Your task to perform on an android device: change keyboard looks Image 0: 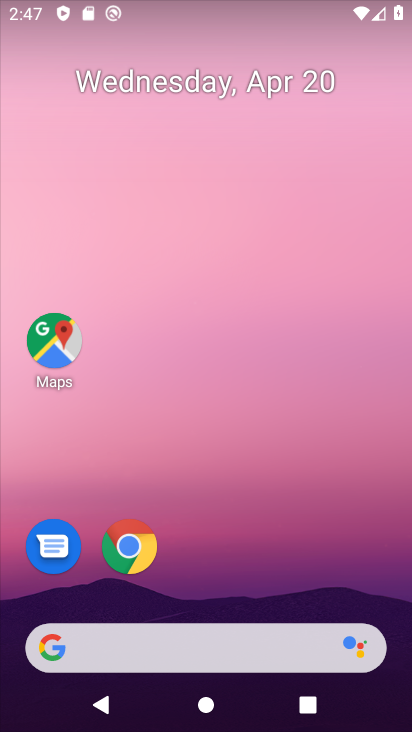
Step 0: drag from (220, 562) to (281, 146)
Your task to perform on an android device: change keyboard looks Image 1: 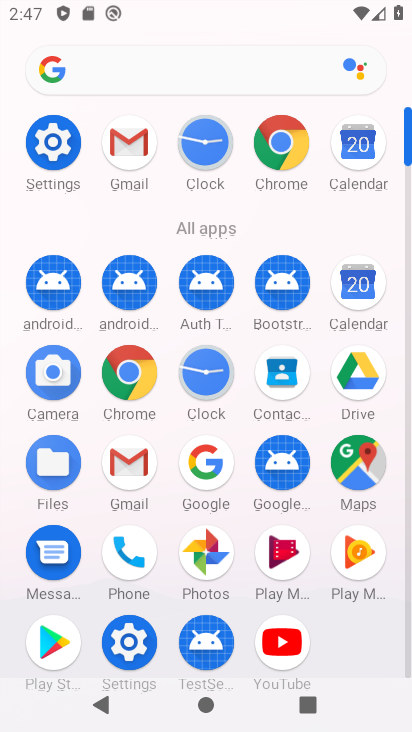
Step 1: click (61, 158)
Your task to perform on an android device: change keyboard looks Image 2: 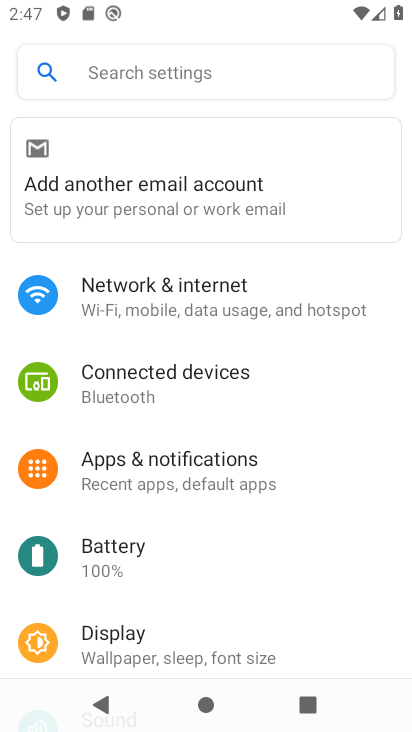
Step 2: drag from (303, 607) to (272, 215)
Your task to perform on an android device: change keyboard looks Image 3: 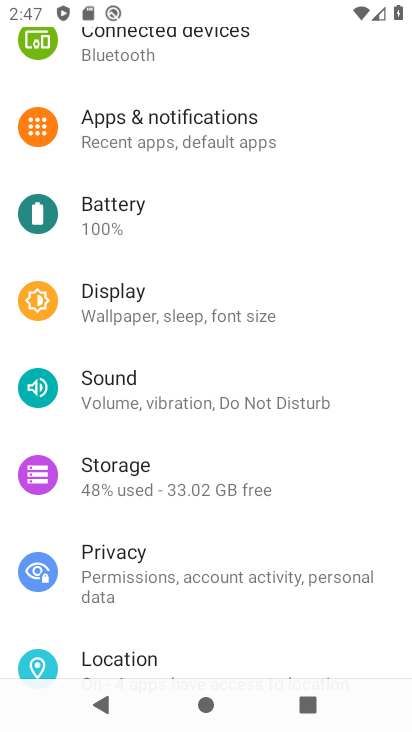
Step 3: drag from (267, 649) to (285, 207)
Your task to perform on an android device: change keyboard looks Image 4: 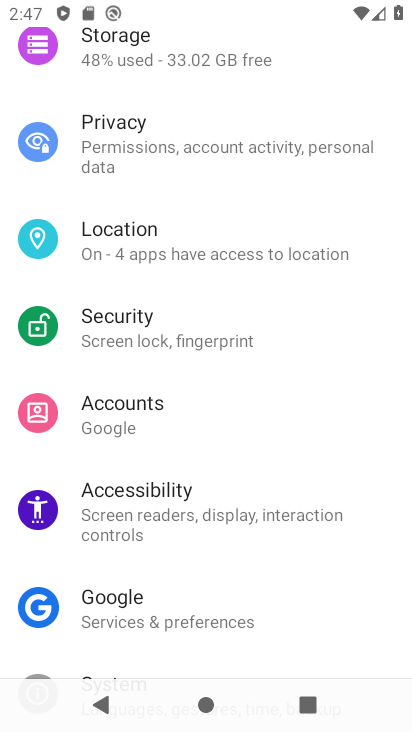
Step 4: drag from (201, 595) to (250, 203)
Your task to perform on an android device: change keyboard looks Image 5: 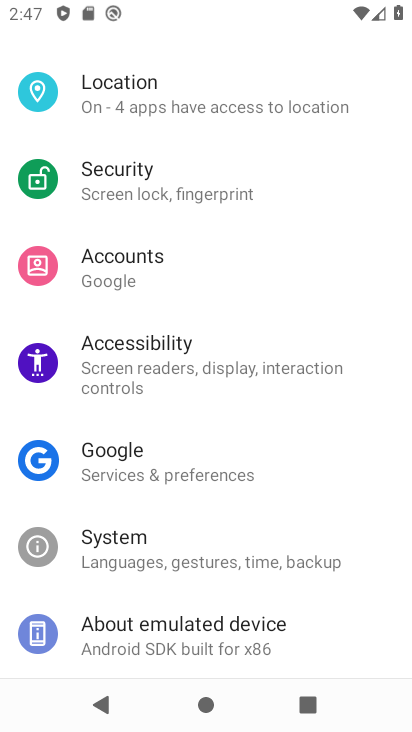
Step 5: click (215, 551)
Your task to perform on an android device: change keyboard looks Image 6: 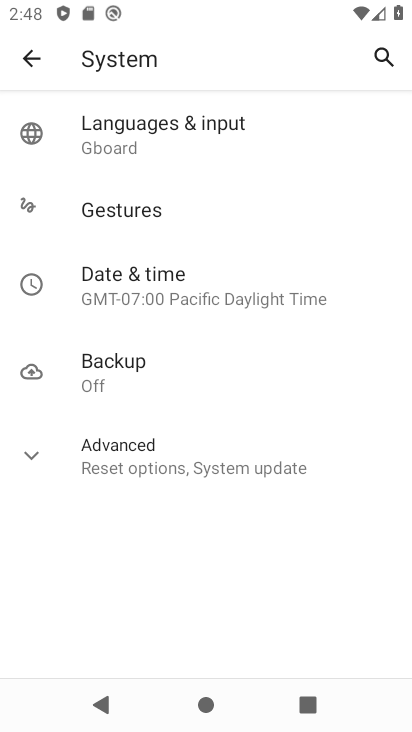
Step 6: click (137, 131)
Your task to perform on an android device: change keyboard looks Image 7: 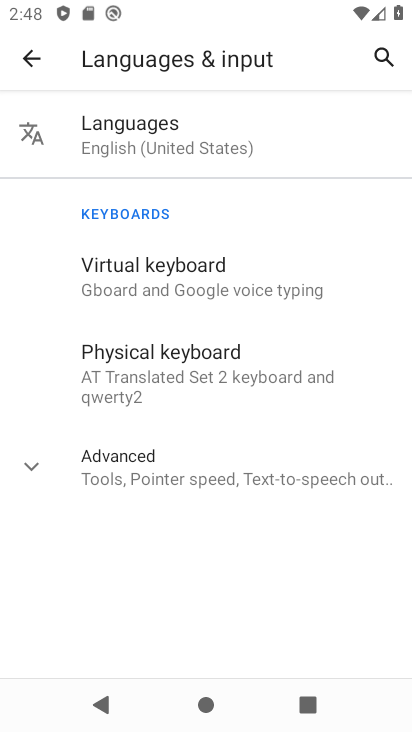
Step 7: click (131, 279)
Your task to perform on an android device: change keyboard looks Image 8: 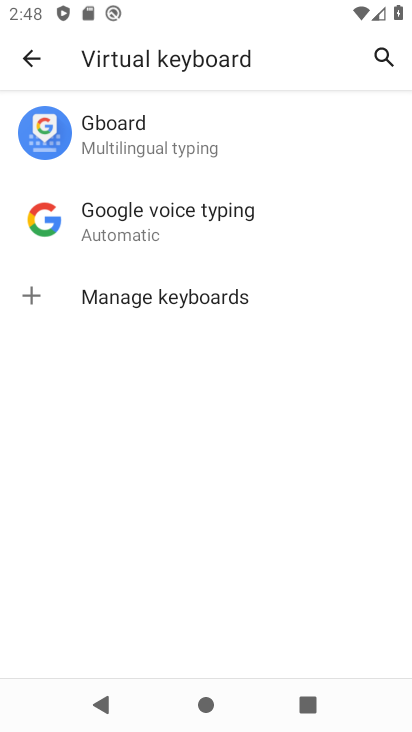
Step 8: click (139, 162)
Your task to perform on an android device: change keyboard looks Image 9: 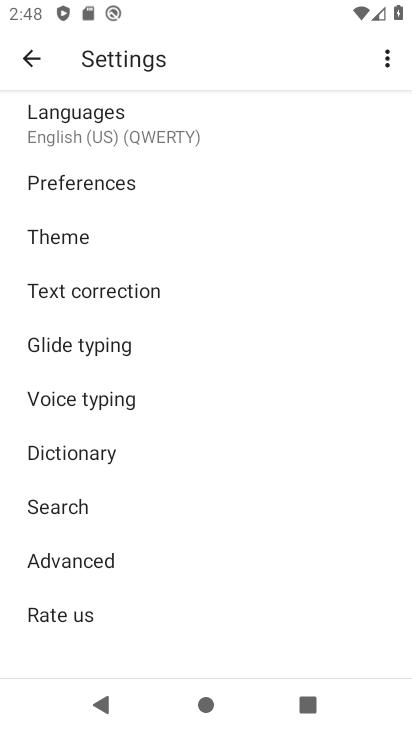
Step 9: click (80, 238)
Your task to perform on an android device: change keyboard looks Image 10: 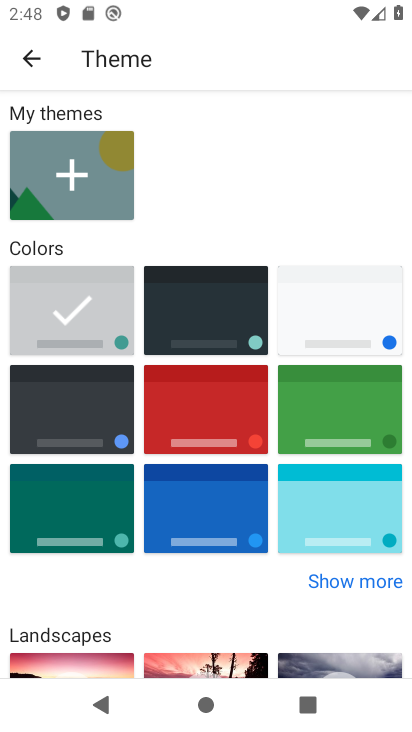
Step 10: click (206, 326)
Your task to perform on an android device: change keyboard looks Image 11: 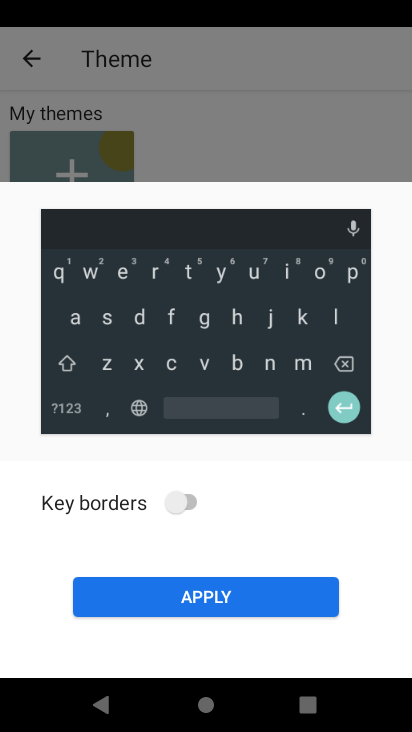
Step 11: click (179, 507)
Your task to perform on an android device: change keyboard looks Image 12: 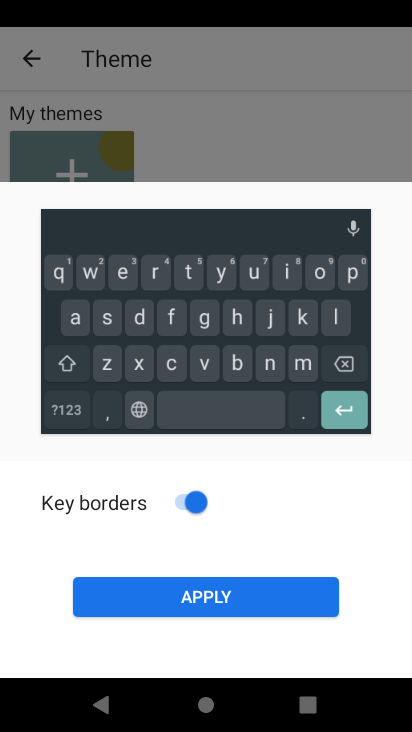
Step 12: click (237, 607)
Your task to perform on an android device: change keyboard looks Image 13: 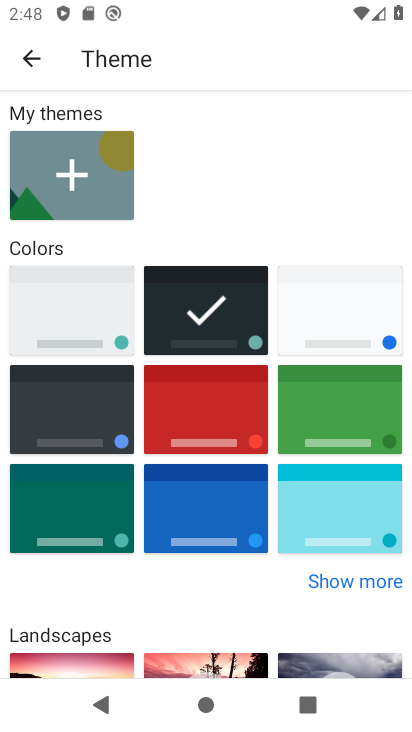
Step 13: task complete